Your task to perform on an android device: Open my contact list Image 0: 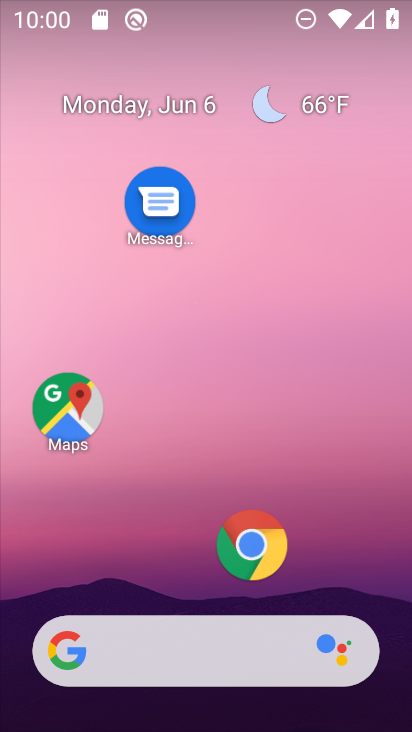
Step 0: drag from (159, 578) to (130, 172)
Your task to perform on an android device: Open my contact list Image 1: 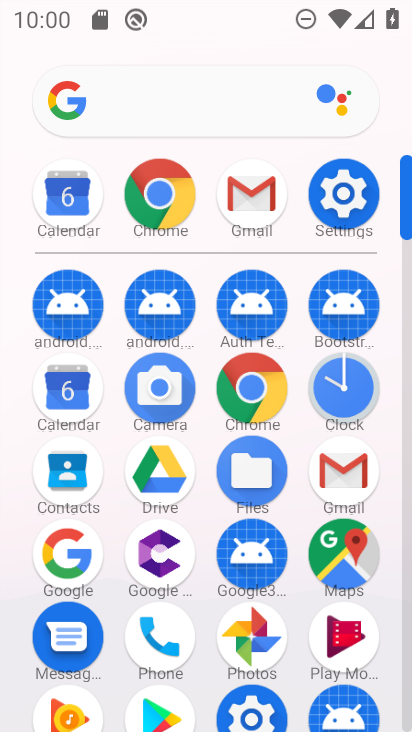
Step 1: click (52, 484)
Your task to perform on an android device: Open my contact list Image 2: 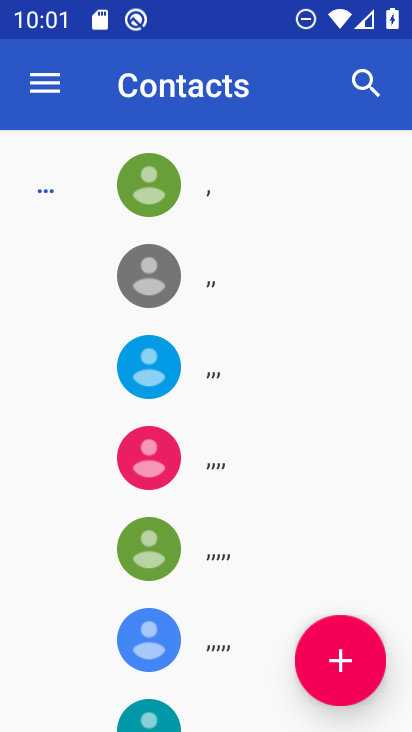
Step 2: task complete